Your task to perform on an android device: turn on airplane mode Image 0: 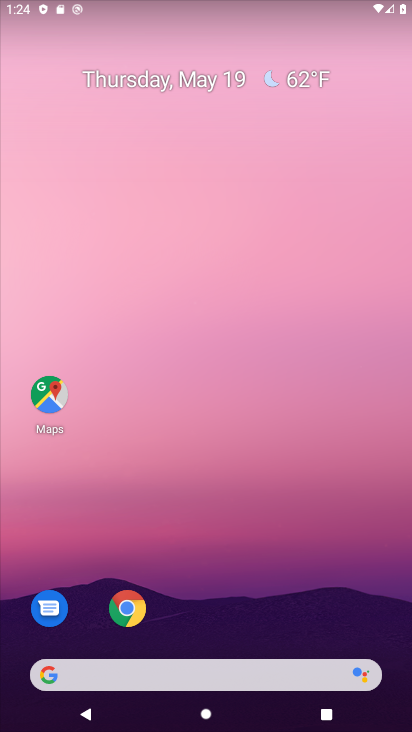
Step 0: drag from (255, 613) to (217, 29)
Your task to perform on an android device: turn on airplane mode Image 1: 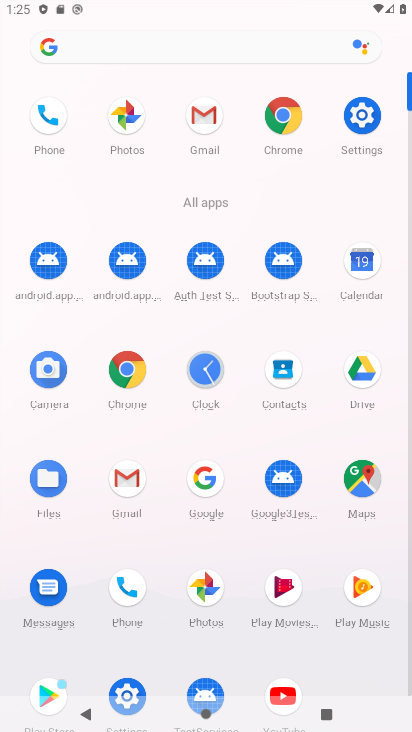
Step 1: click (367, 142)
Your task to perform on an android device: turn on airplane mode Image 2: 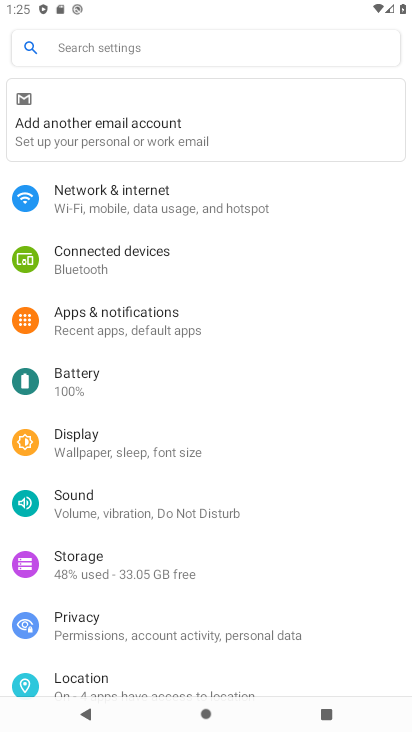
Step 2: click (204, 211)
Your task to perform on an android device: turn on airplane mode Image 3: 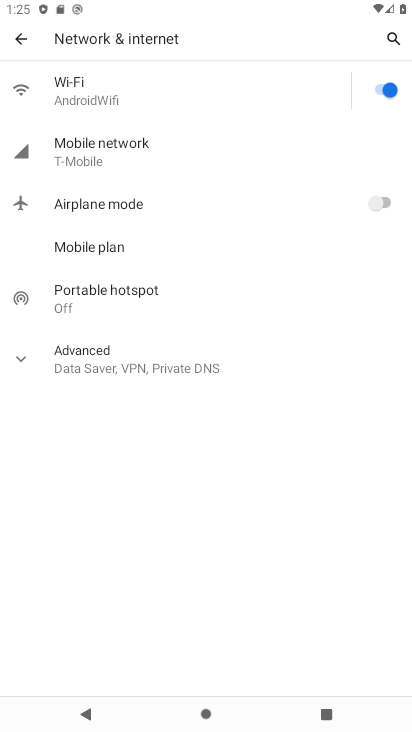
Step 3: click (204, 211)
Your task to perform on an android device: turn on airplane mode Image 4: 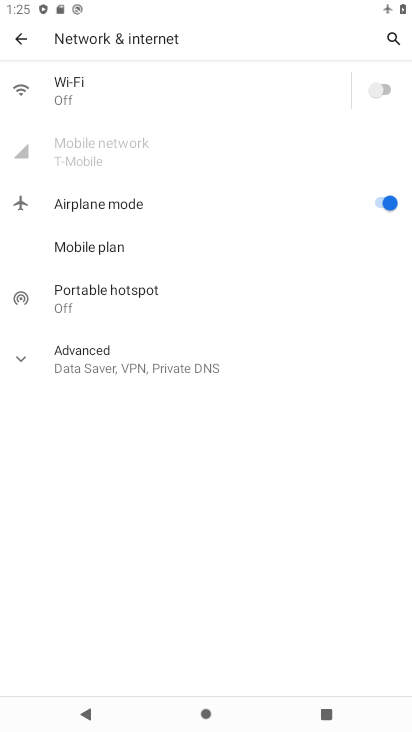
Step 4: click (378, 89)
Your task to perform on an android device: turn on airplane mode Image 5: 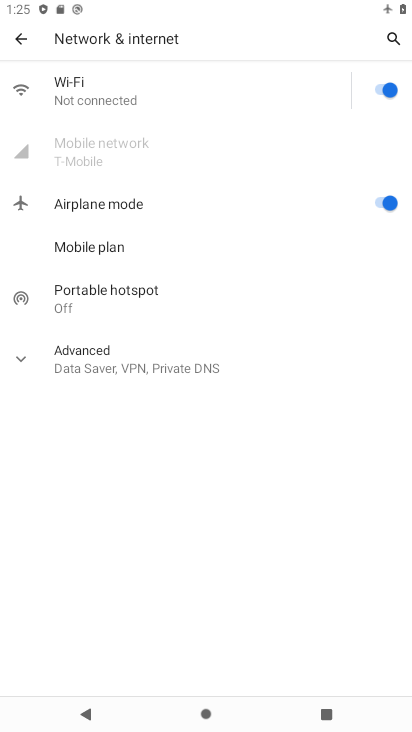
Step 5: task complete